Your task to perform on an android device: See recent photos Image 0: 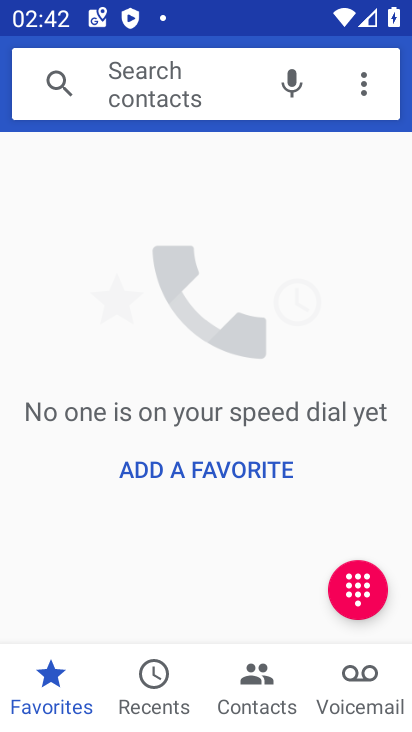
Step 0: press home button
Your task to perform on an android device: See recent photos Image 1: 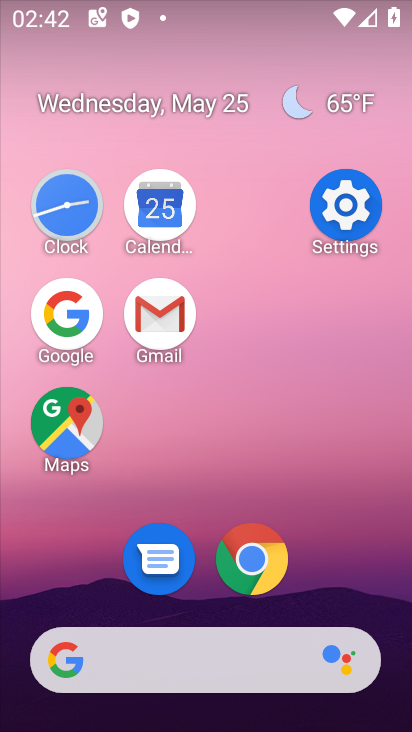
Step 1: drag from (365, 574) to (364, 223)
Your task to perform on an android device: See recent photos Image 2: 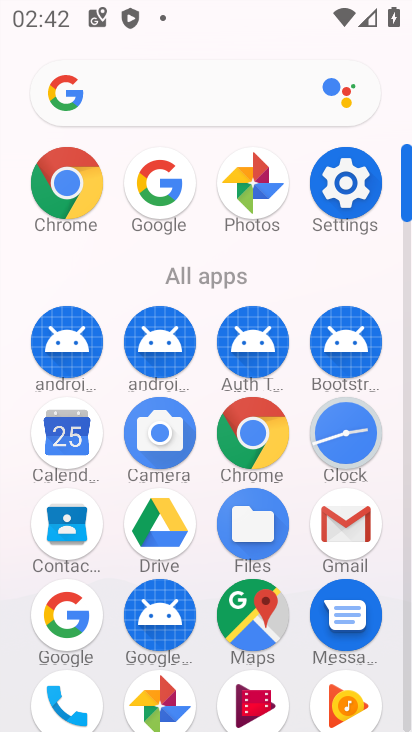
Step 2: click (267, 200)
Your task to perform on an android device: See recent photos Image 3: 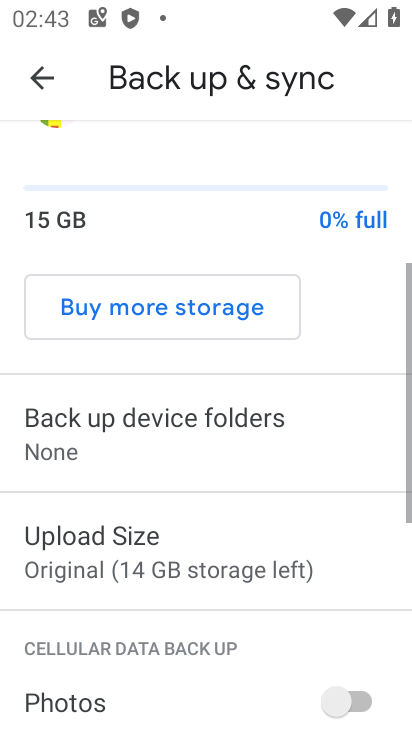
Step 3: click (29, 78)
Your task to perform on an android device: See recent photos Image 4: 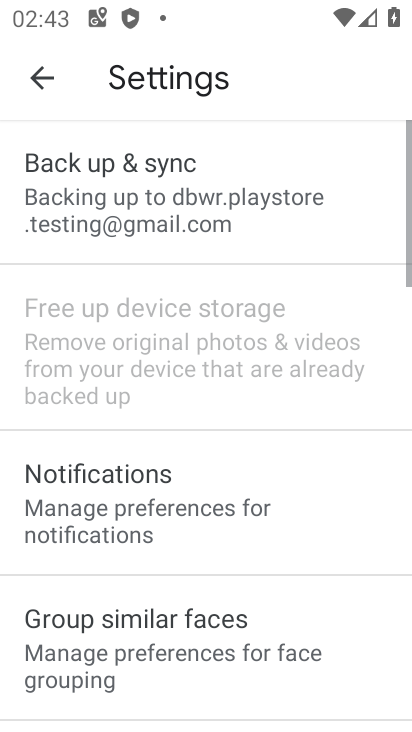
Step 4: click (62, 83)
Your task to perform on an android device: See recent photos Image 5: 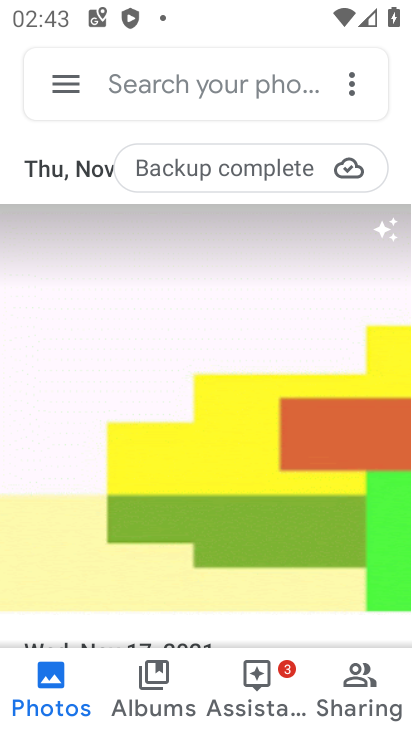
Step 5: task complete